Your task to perform on an android device: Go to battery settings Image 0: 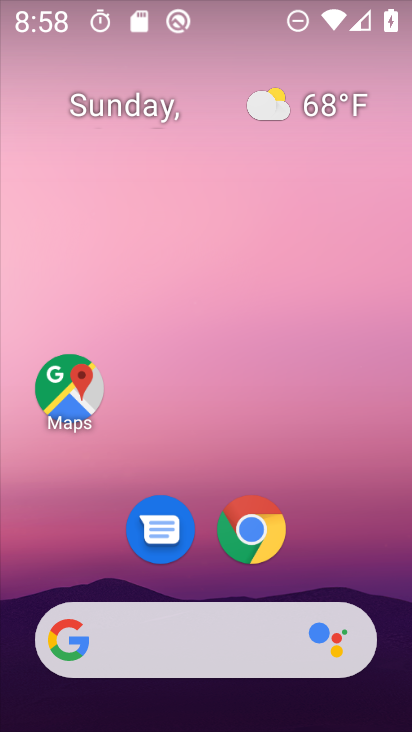
Step 0: drag from (303, 574) to (222, 14)
Your task to perform on an android device: Go to battery settings Image 1: 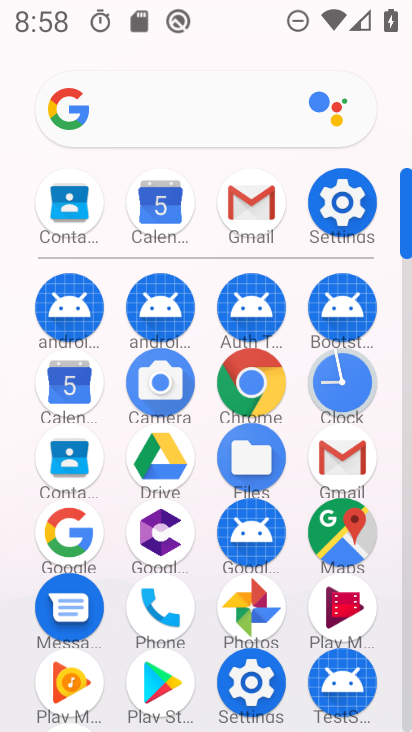
Step 1: click (342, 195)
Your task to perform on an android device: Go to battery settings Image 2: 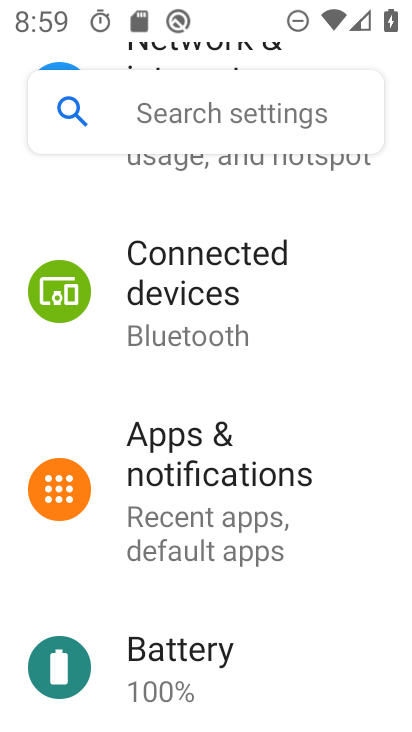
Step 2: click (238, 666)
Your task to perform on an android device: Go to battery settings Image 3: 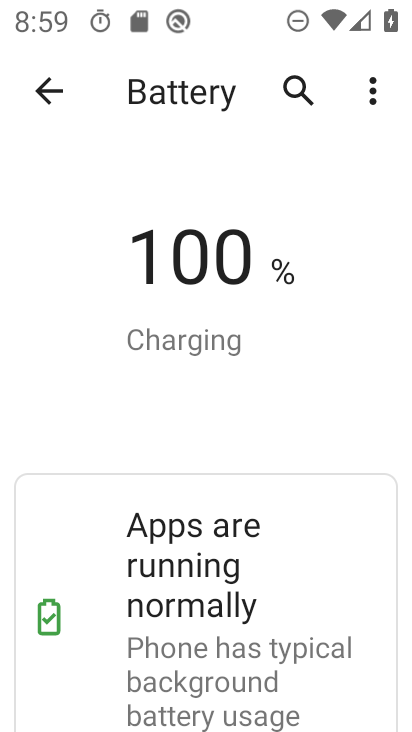
Step 3: task complete